Your task to perform on an android device: turn on showing notifications on the lock screen Image 0: 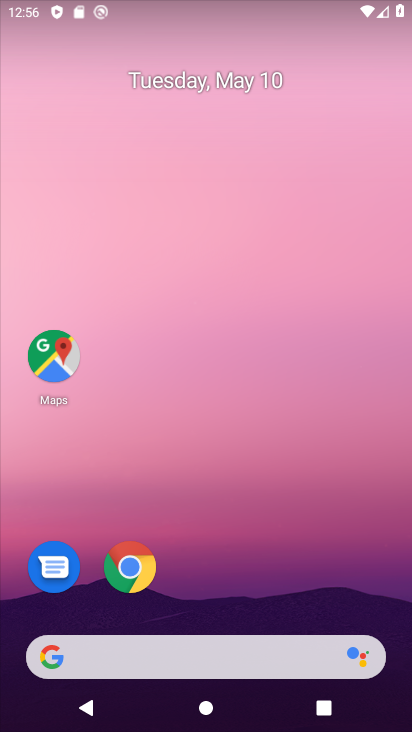
Step 0: drag from (333, 602) to (261, 213)
Your task to perform on an android device: turn on showing notifications on the lock screen Image 1: 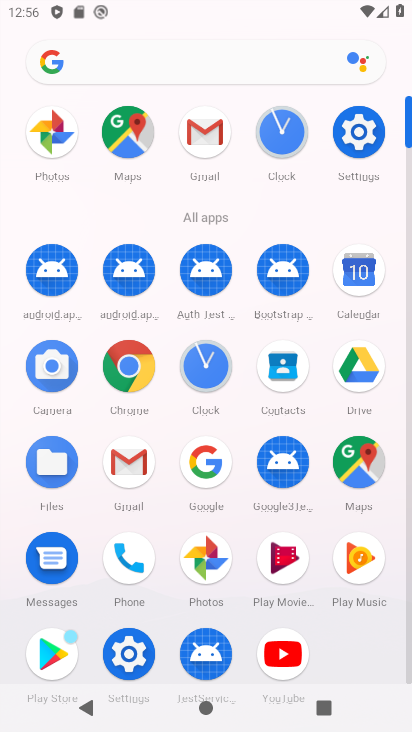
Step 1: click (380, 137)
Your task to perform on an android device: turn on showing notifications on the lock screen Image 2: 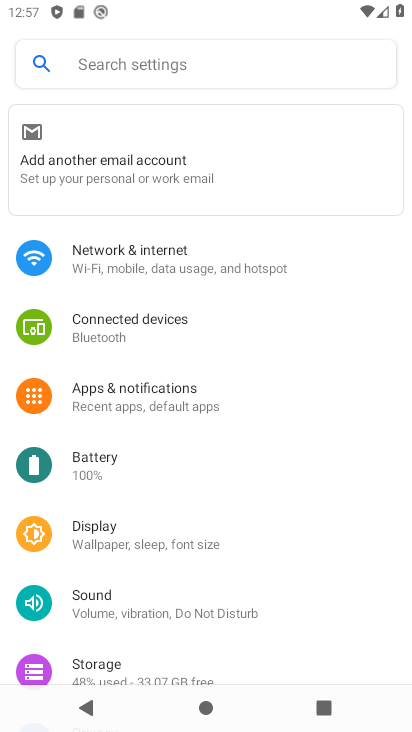
Step 2: click (240, 396)
Your task to perform on an android device: turn on showing notifications on the lock screen Image 3: 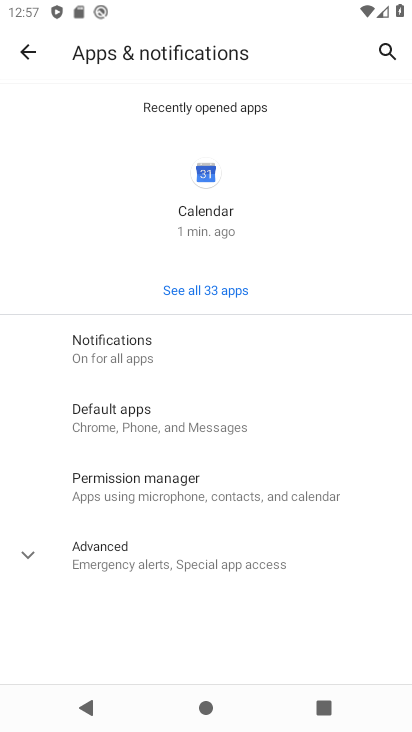
Step 3: click (159, 360)
Your task to perform on an android device: turn on showing notifications on the lock screen Image 4: 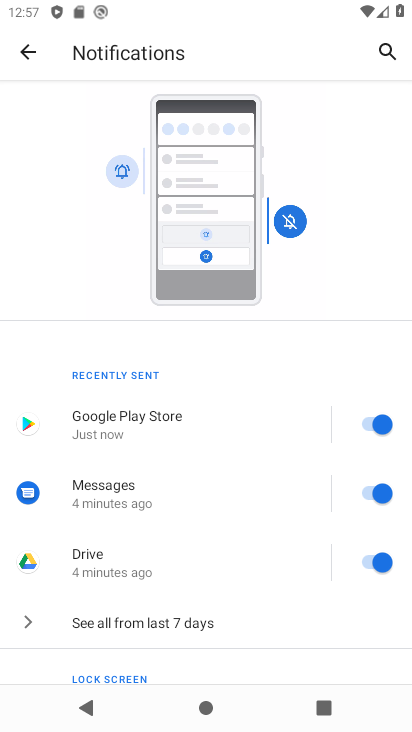
Step 4: drag from (221, 594) to (196, 349)
Your task to perform on an android device: turn on showing notifications on the lock screen Image 5: 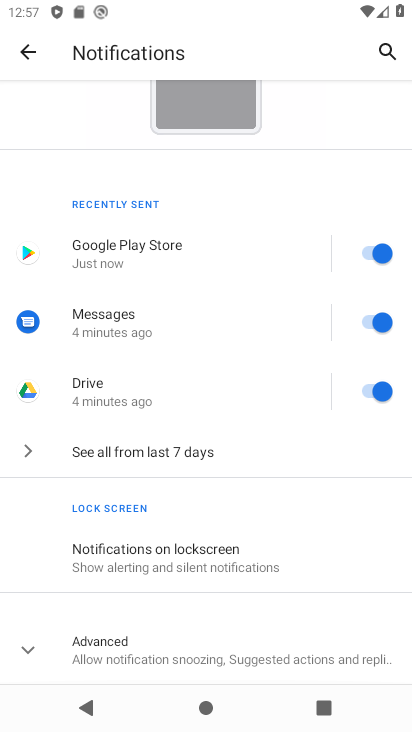
Step 5: click (196, 556)
Your task to perform on an android device: turn on showing notifications on the lock screen Image 6: 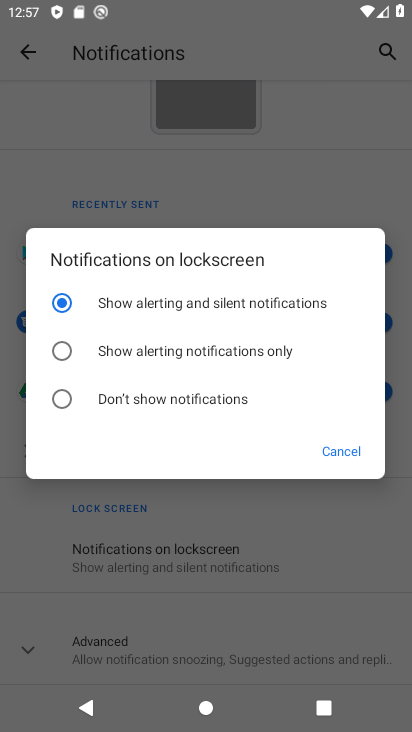
Step 6: task complete